Your task to perform on an android device: Open the web browser Image 0: 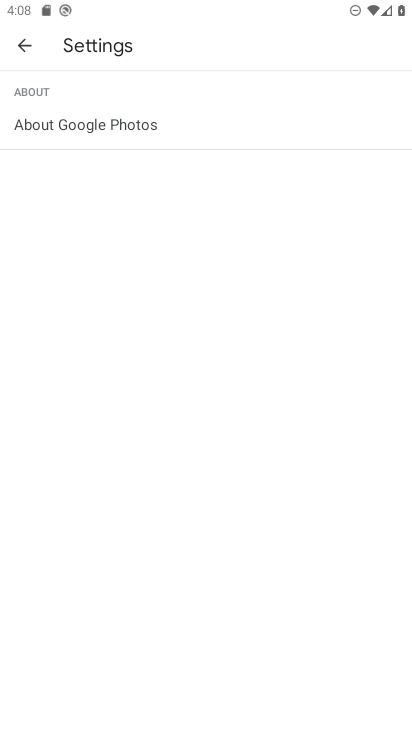
Step 0: press home button
Your task to perform on an android device: Open the web browser Image 1: 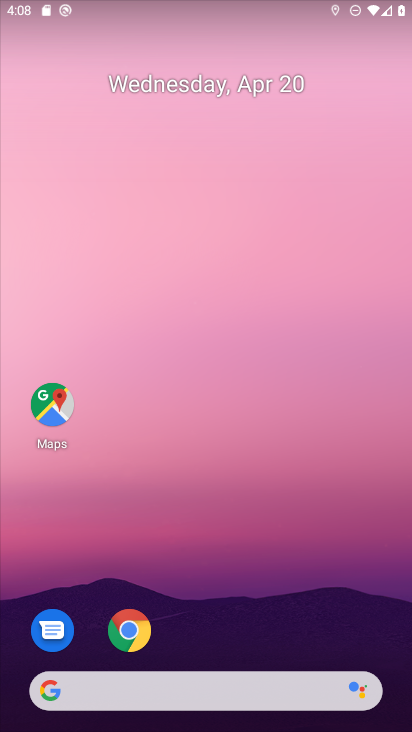
Step 1: drag from (298, 658) to (340, 66)
Your task to perform on an android device: Open the web browser Image 2: 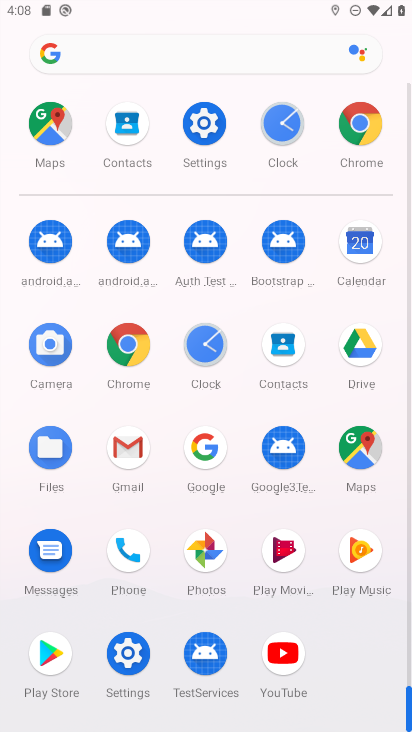
Step 2: click (122, 348)
Your task to perform on an android device: Open the web browser Image 3: 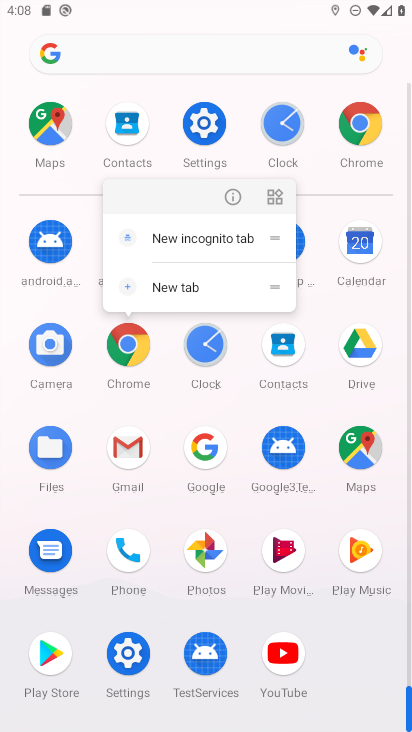
Step 3: click (122, 348)
Your task to perform on an android device: Open the web browser Image 4: 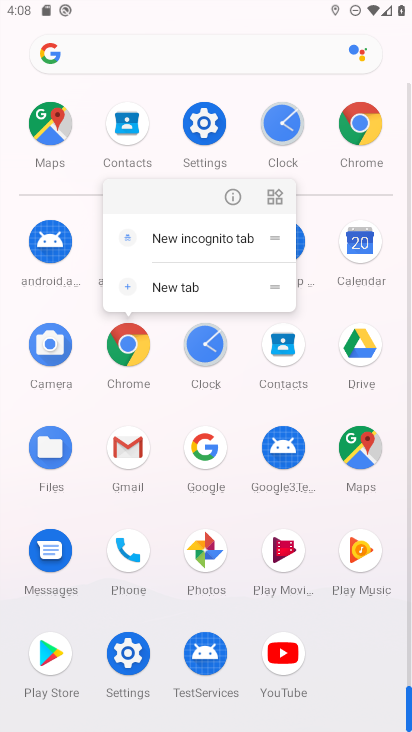
Step 4: click (133, 338)
Your task to perform on an android device: Open the web browser Image 5: 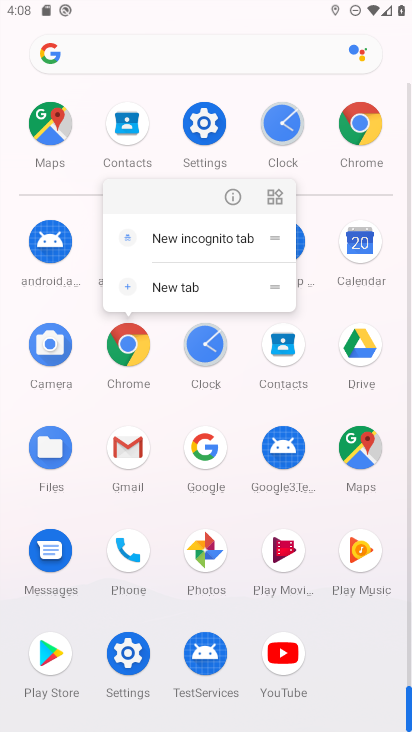
Step 5: click (133, 338)
Your task to perform on an android device: Open the web browser Image 6: 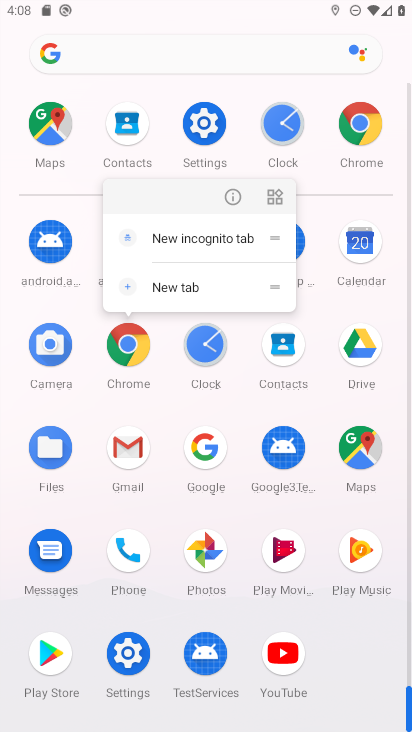
Step 6: click (133, 338)
Your task to perform on an android device: Open the web browser Image 7: 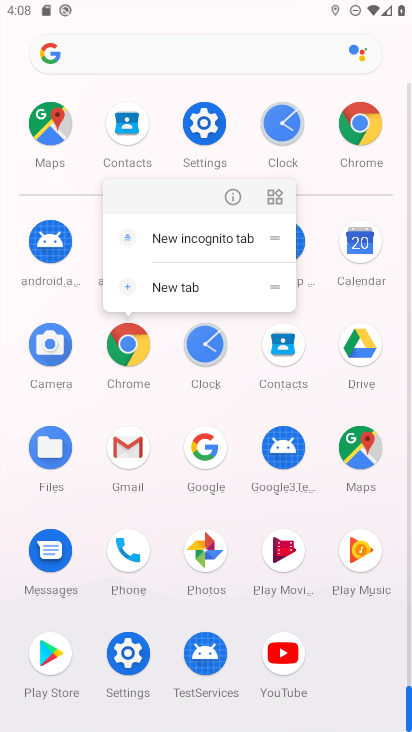
Step 7: click (133, 338)
Your task to perform on an android device: Open the web browser Image 8: 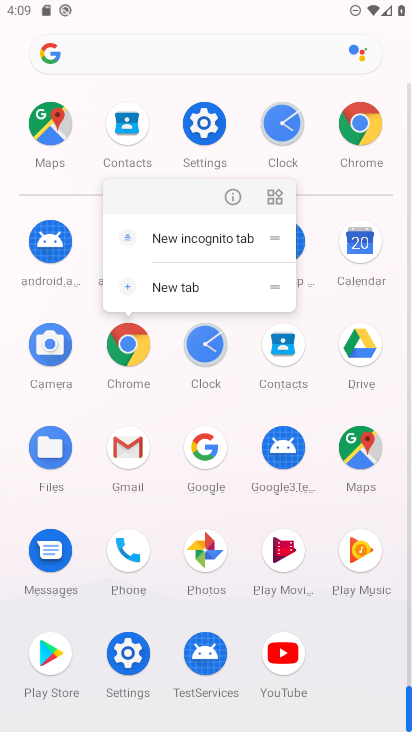
Step 8: click (122, 347)
Your task to perform on an android device: Open the web browser Image 9: 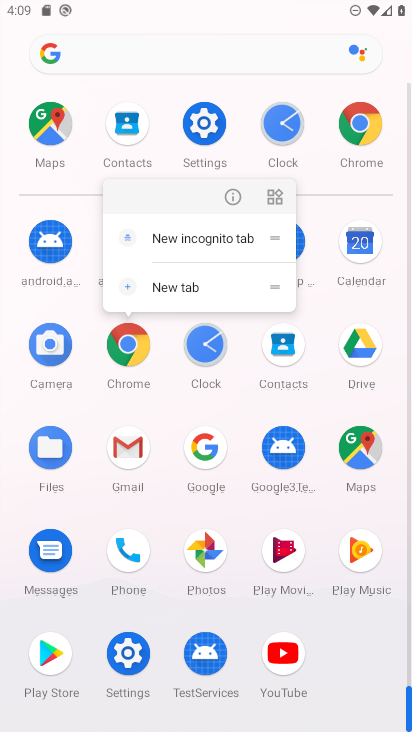
Step 9: click (122, 347)
Your task to perform on an android device: Open the web browser Image 10: 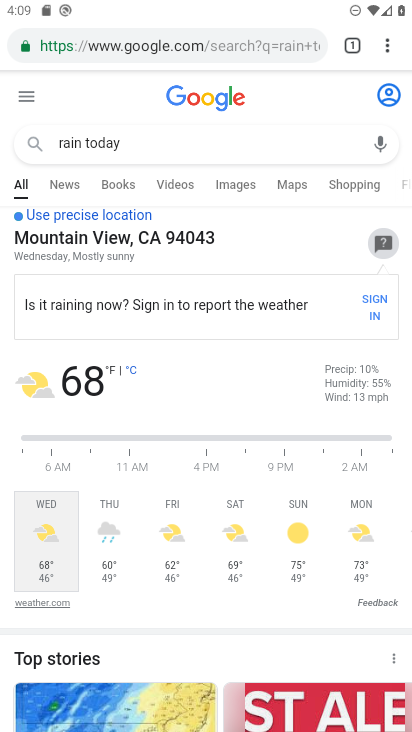
Step 10: task complete